Your task to perform on an android device: Open Chrome and go to settings Image 0: 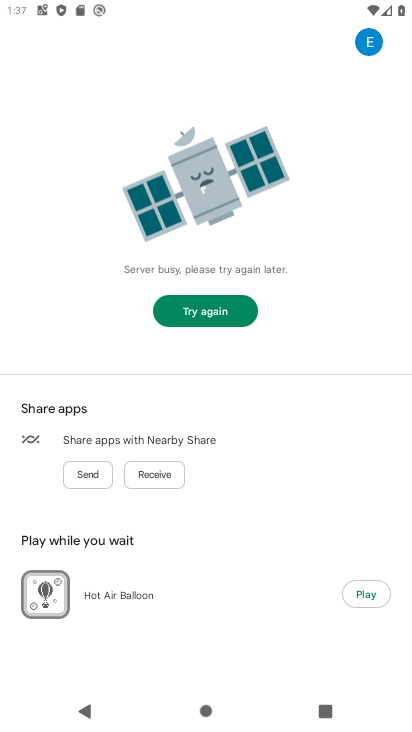
Step 0: press home button
Your task to perform on an android device: Open Chrome and go to settings Image 1: 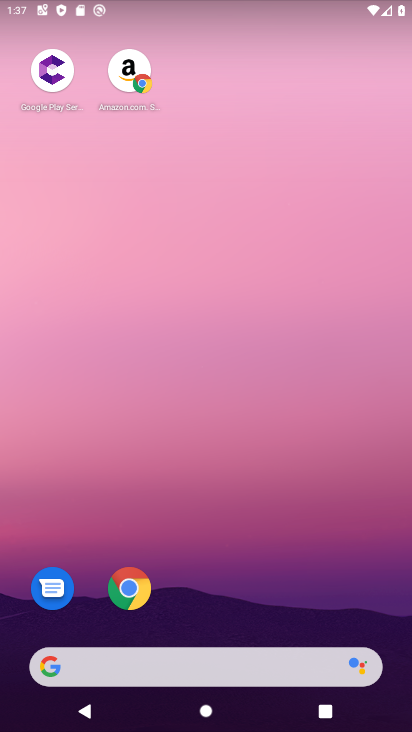
Step 1: click (129, 590)
Your task to perform on an android device: Open Chrome and go to settings Image 2: 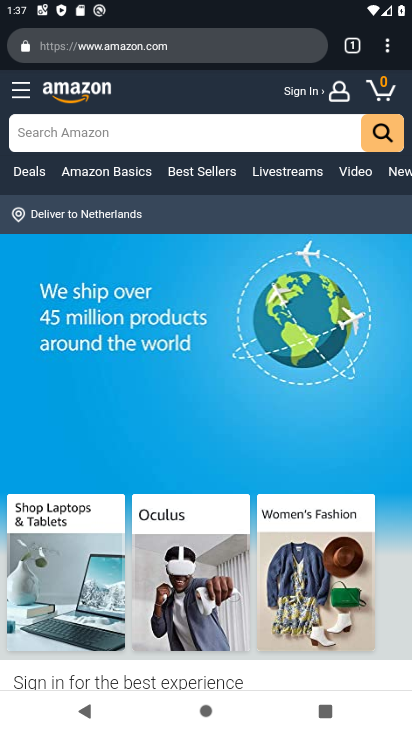
Step 2: click (388, 45)
Your task to perform on an android device: Open Chrome and go to settings Image 3: 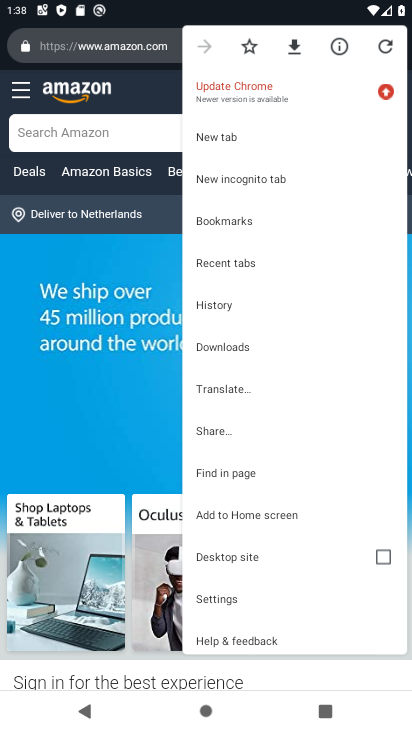
Step 3: click (224, 599)
Your task to perform on an android device: Open Chrome and go to settings Image 4: 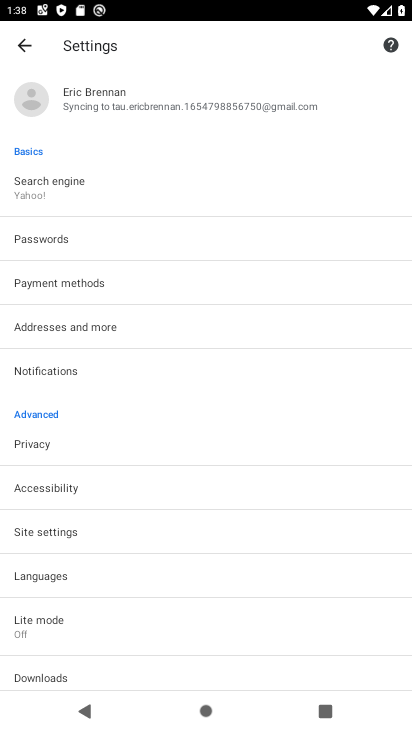
Step 4: task complete